Your task to perform on an android device: stop showing notifications on the lock screen Image 0: 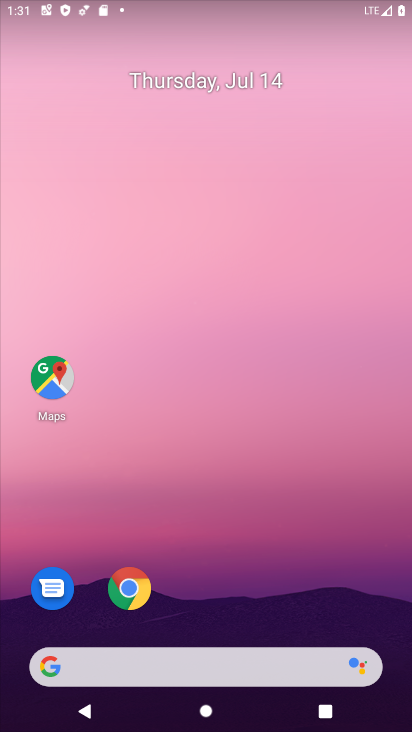
Step 0: drag from (300, 577) to (317, 114)
Your task to perform on an android device: stop showing notifications on the lock screen Image 1: 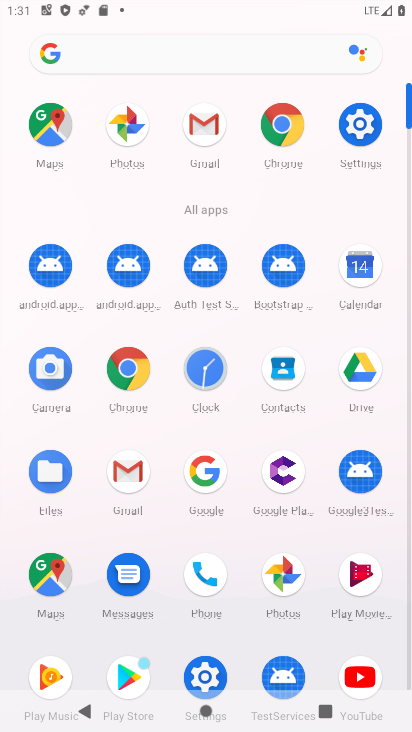
Step 1: click (357, 136)
Your task to perform on an android device: stop showing notifications on the lock screen Image 2: 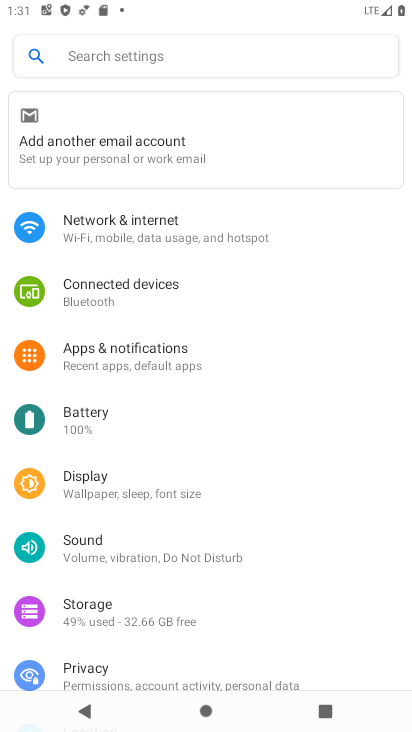
Step 2: click (97, 343)
Your task to perform on an android device: stop showing notifications on the lock screen Image 3: 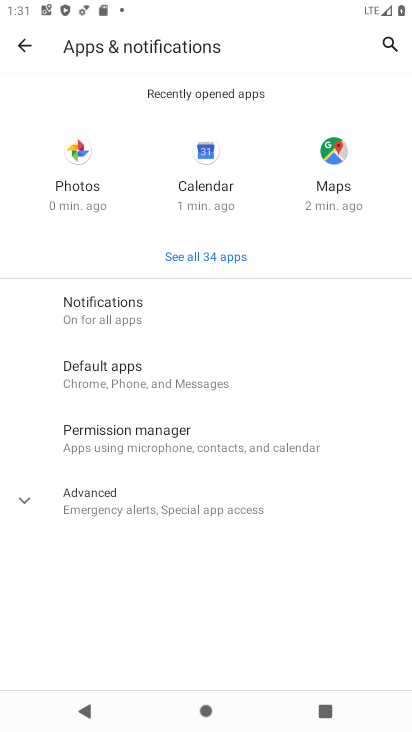
Step 3: click (120, 317)
Your task to perform on an android device: stop showing notifications on the lock screen Image 4: 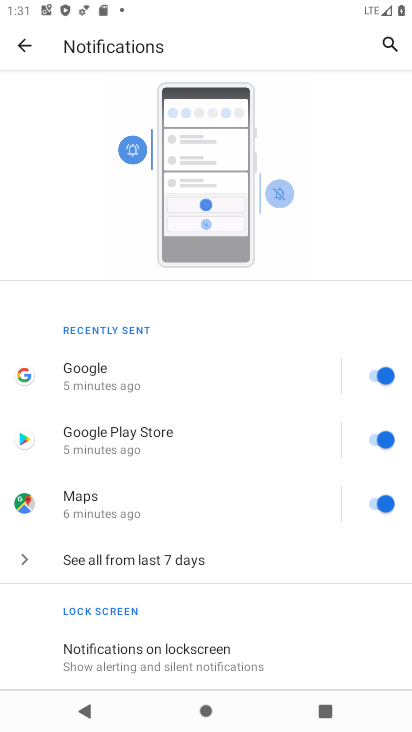
Step 4: click (159, 638)
Your task to perform on an android device: stop showing notifications on the lock screen Image 5: 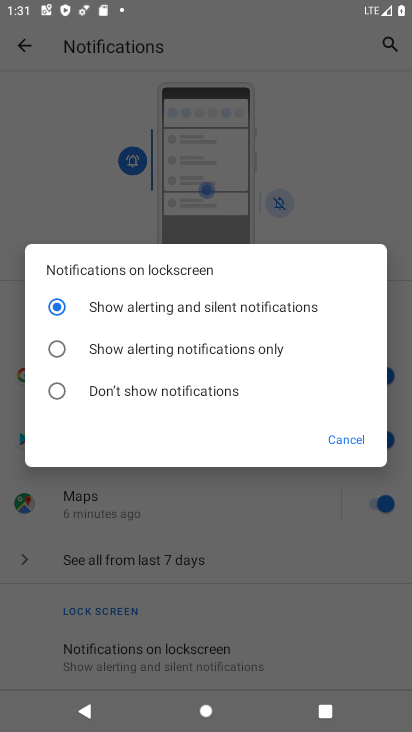
Step 5: click (158, 394)
Your task to perform on an android device: stop showing notifications on the lock screen Image 6: 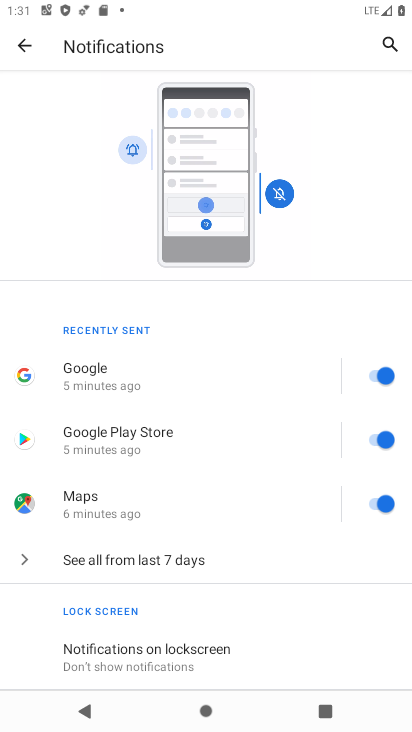
Step 6: task complete